Your task to perform on an android device: turn on bluetooth scan Image 0: 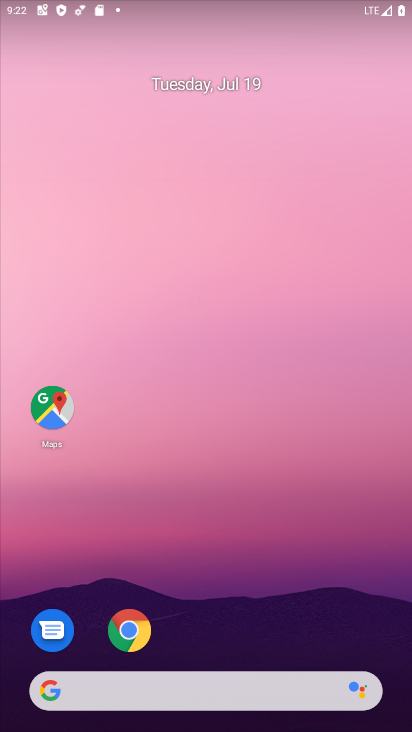
Step 0: drag from (249, 615) to (285, 365)
Your task to perform on an android device: turn on bluetooth scan Image 1: 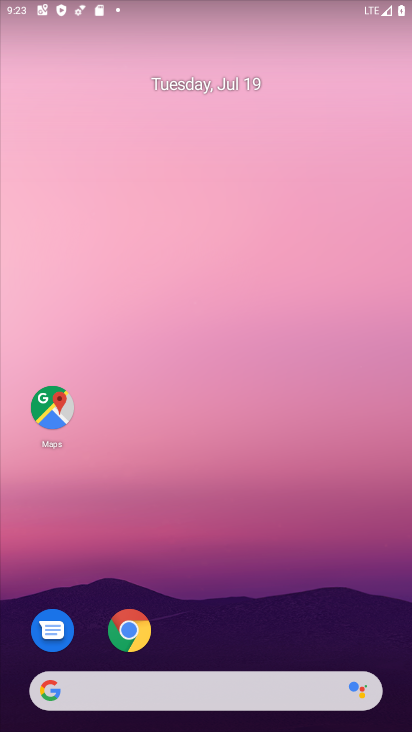
Step 1: drag from (234, 704) to (244, 220)
Your task to perform on an android device: turn on bluetooth scan Image 2: 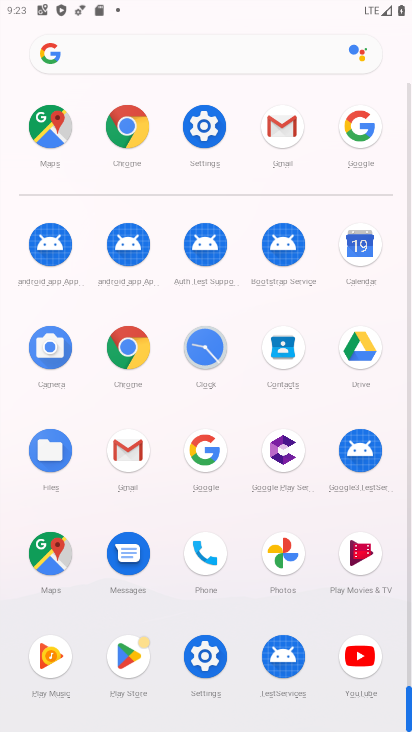
Step 2: click (199, 135)
Your task to perform on an android device: turn on bluetooth scan Image 3: 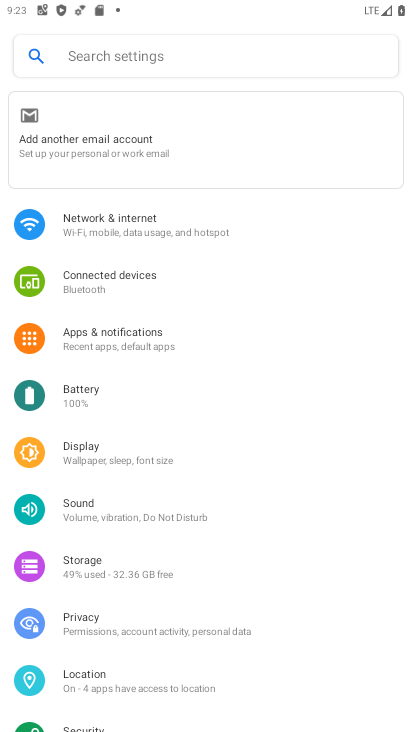
Step 3: click (120, 355)
Your task to perform on an android device: turn on bluetooth scan Image 4: 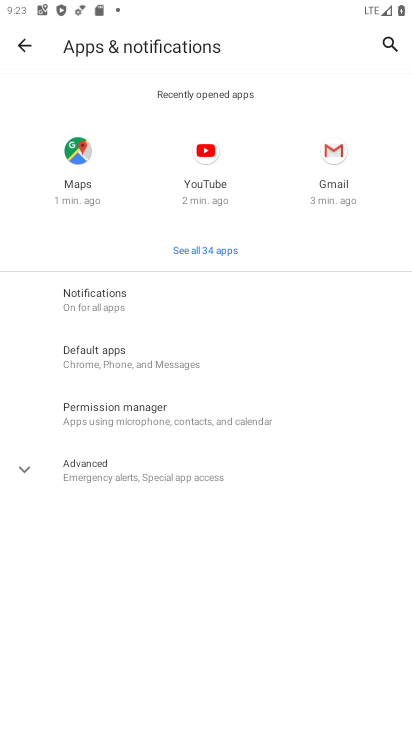
Step 4: click (17, 54)
Your task to perform on an android device: turn on bluetooth scan Image 5: 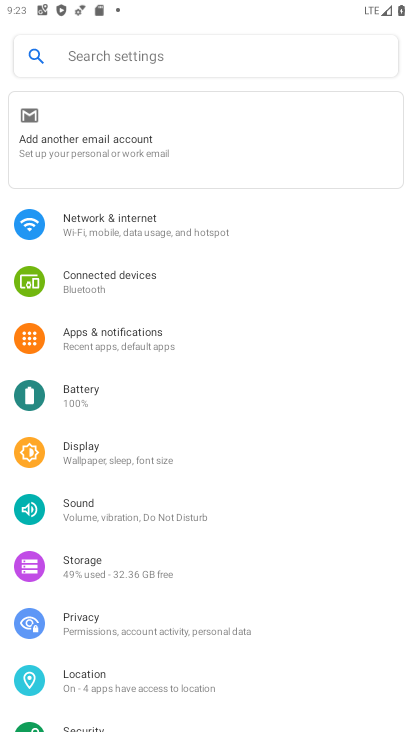
Step 5: click (112, 279)
Your task to perform on an android device: turn on bluetooth scan Image 6: 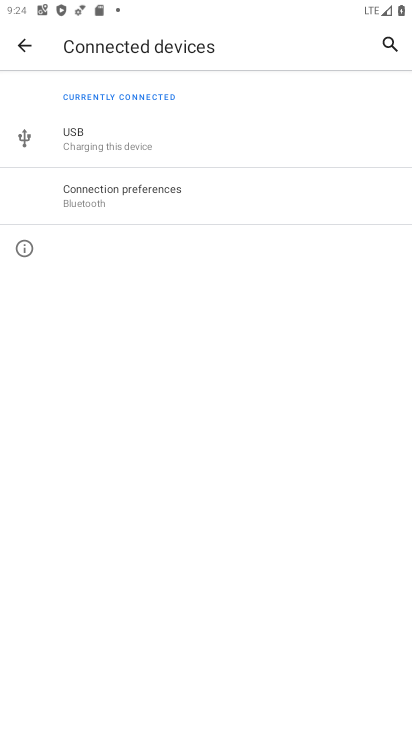
Step 6: click (159, 205)
Your task to perform on an android device: turn on bluetooth scan Image 7: 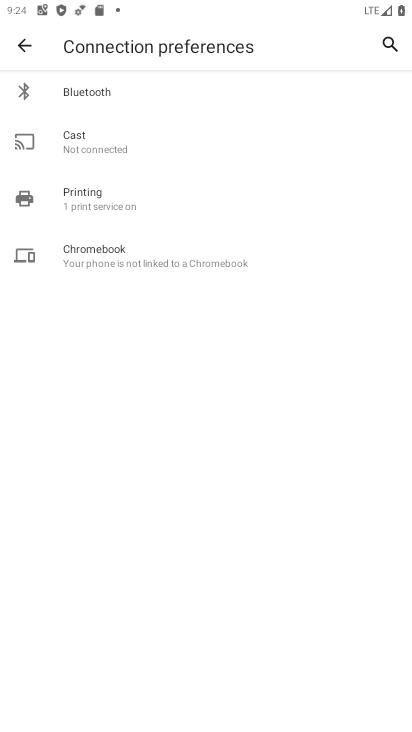
Step 7: click (96, 101)
Your task to perform on an android device: turn on bluetooth scan Image 8: 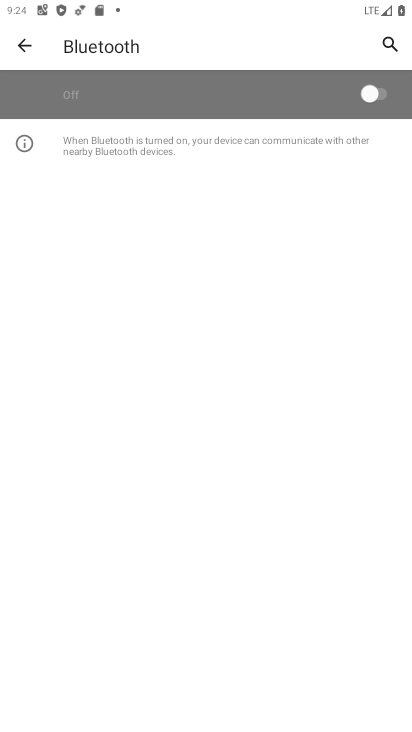
Step 8: task complete